Your task to perform on an android device: Go to Android settings Image 0: 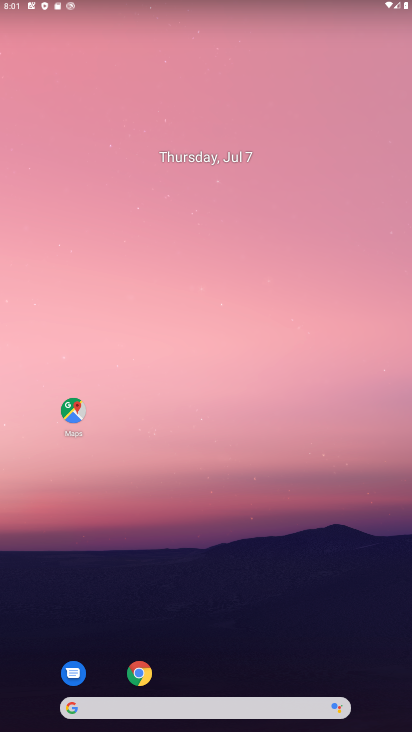
Step 0: drag from (276, 586) to (232, 18)
Your task to perform on an android device: Go to Android settings Image 1: 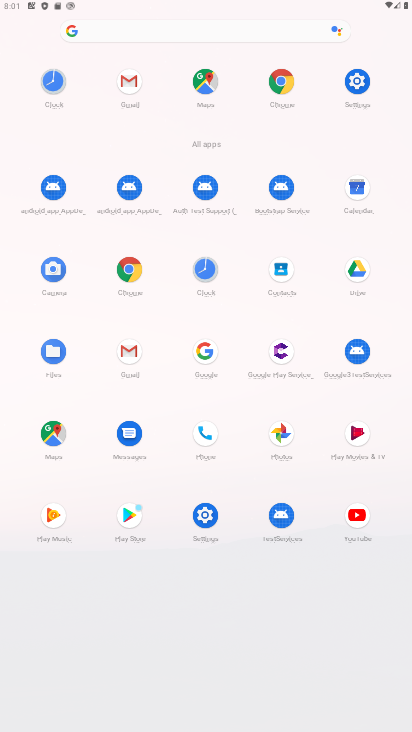
Step 1: click (355, 88)
Your task to perform on an android device: Go to Android settings Image 2: 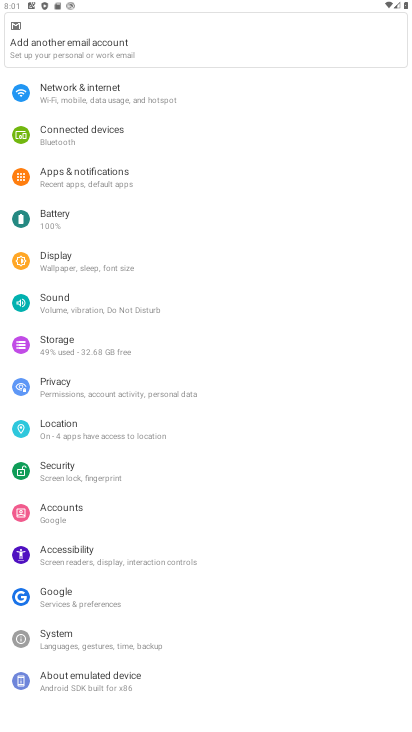
Step 2: task complete